Your task to perform on an android device: Toggle the flashlight Image 0: 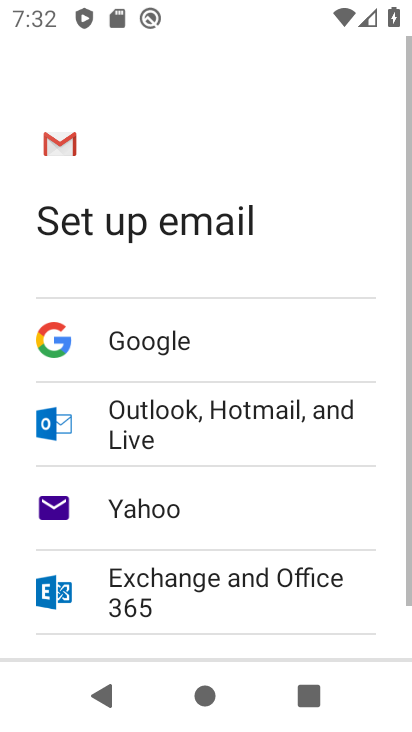
Step 0: press home button
Your task to perform on an android device: Toggle the flashlight Image 1: 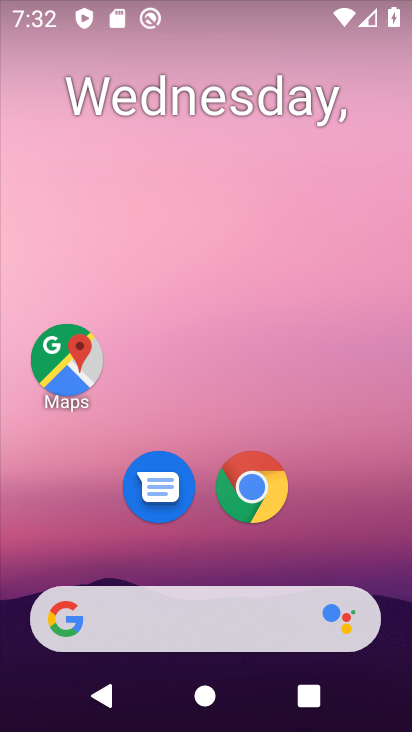
Step 1: task complete